Your task to perform on an android device: change alarm snooze length Image 0: 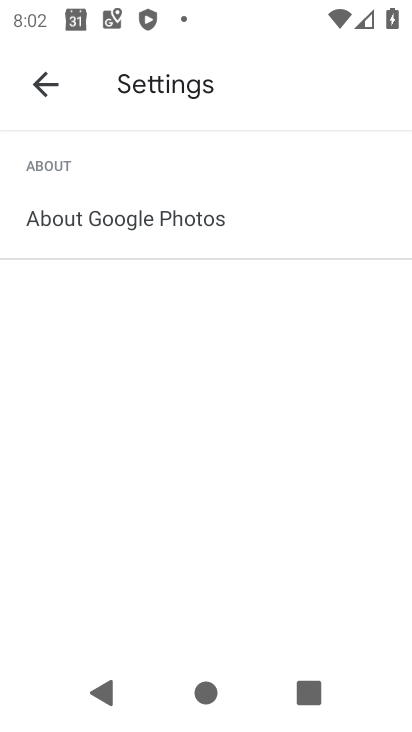
Step 0: press home button
Your task to perform on an android device: change alarm snooze length Image 1: 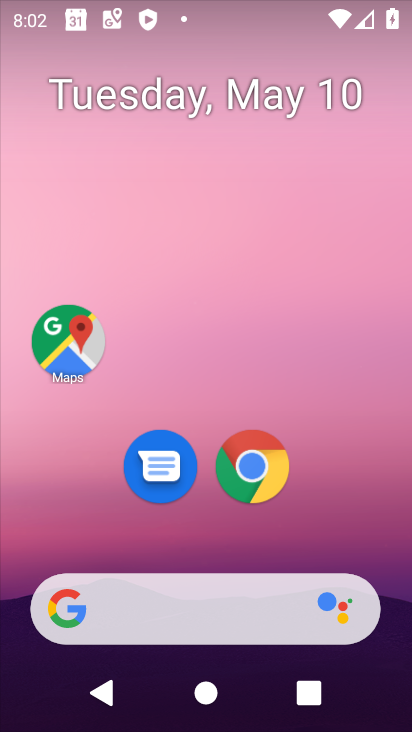
Step 1: drag from (336, 517) to (297, 31)
Your task to perform on an android device: change alarm snooze length Image 2: 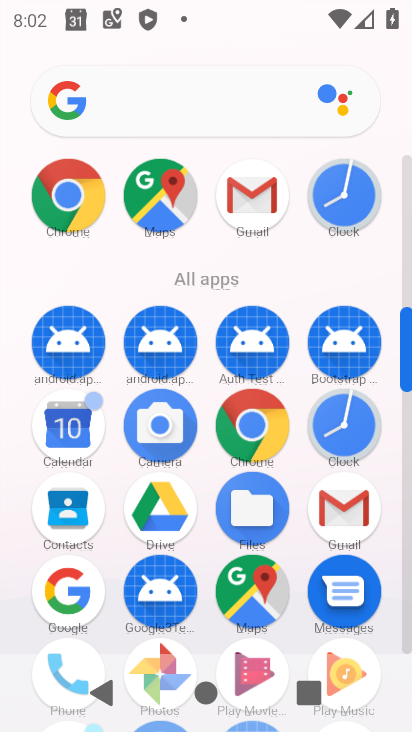
Step 2: click (353, 181)
Your task to perform on an android device: change alarm snooze length Image 3: 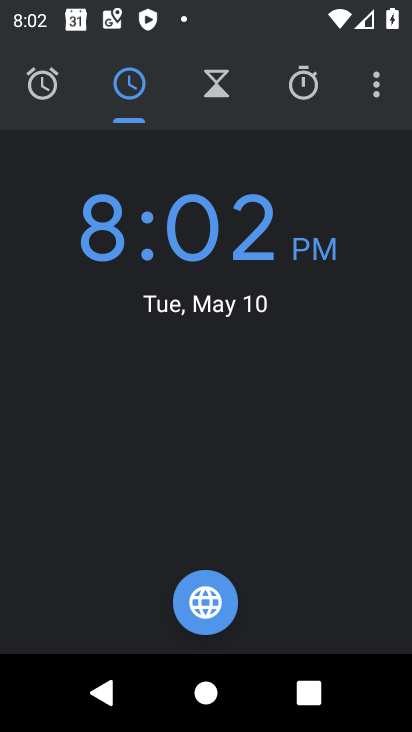
Step 3: click (368, 92)
Your task to perform on an android device: change alarm snooze length Image 4: 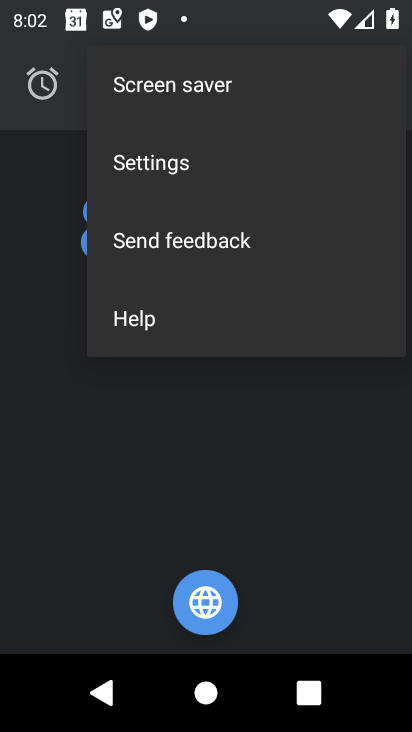
Step 4: click (313, 159)
Your task to perform on an android device: change alarm snooze length Image 5: 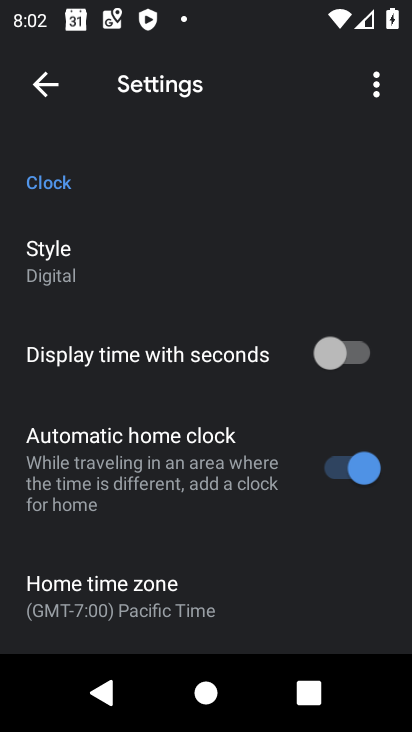
Step 5: drag from (182, 546) to (169, 352)
Your task to perform on an android device: change alarm snooze length Image 6: 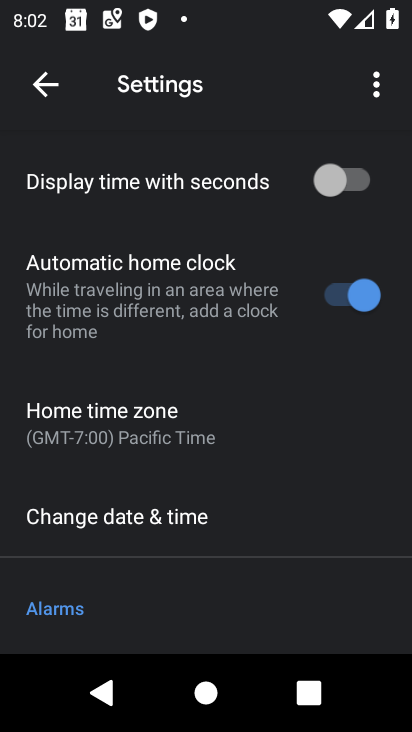
Step 6: drag from (172, 570) to (160, 425)
Your task to perform on an android device: change alarm snooze length Image 7: 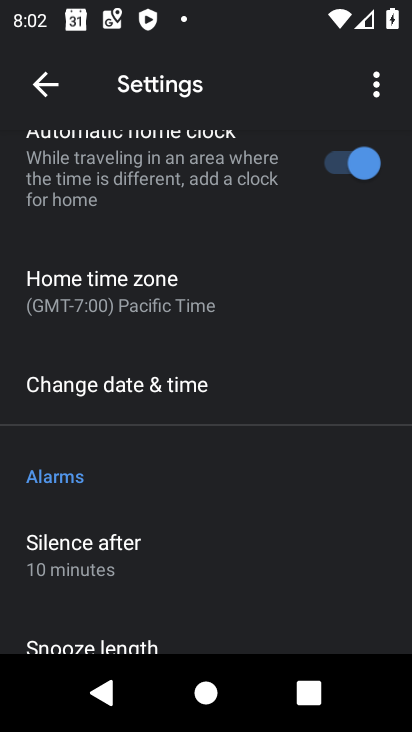
Step 7: drag from (187, 537) to (182, 404)
Your task to perform on an android device: change alarm snooze length Image 8: 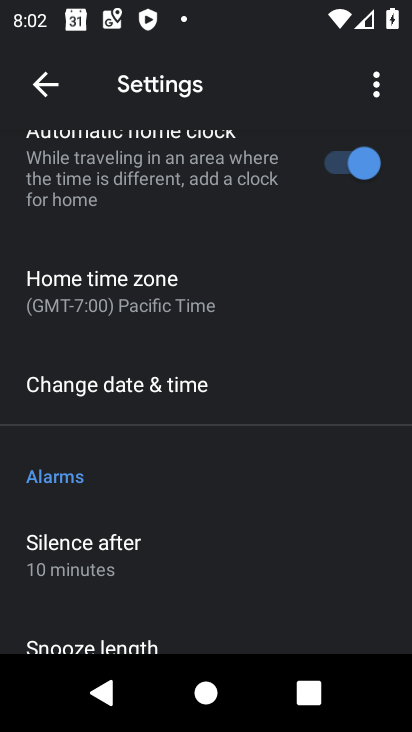
Step 8: drag from (162, 519) to (177, 337)
Your task to perform on an android device: change alarm snooze length Image 9: 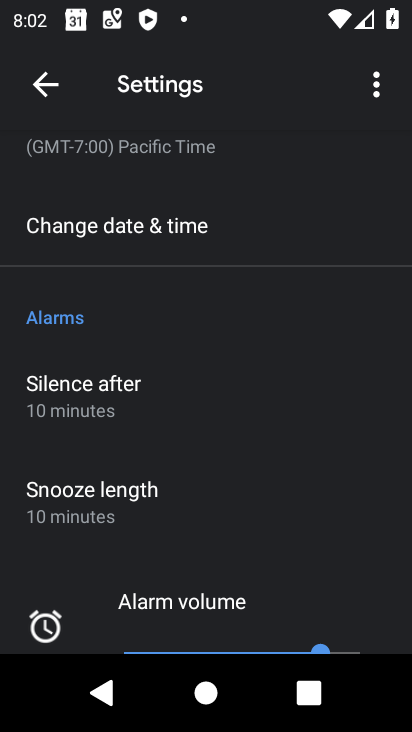
Step 9: click (158, 480)
Your task to perform on an android device: change alarm snooze length Image 10: 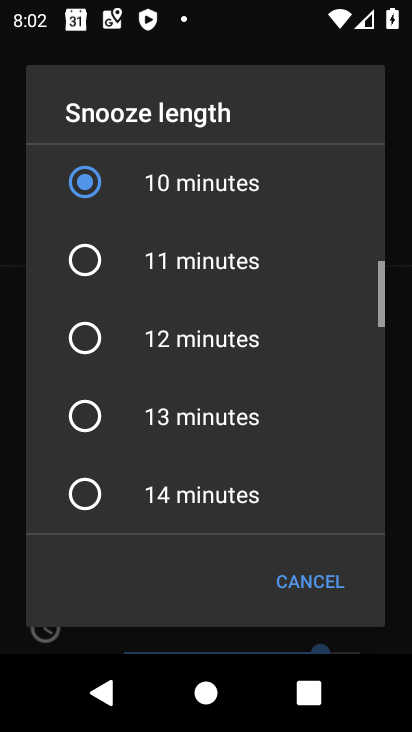
Step 10: click (161, 461)
Your task to perform on an android device: change alarm snooze length Image 11: 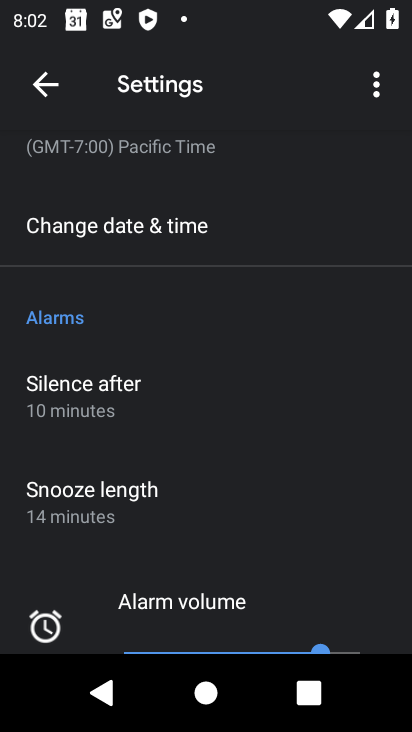
Step 11: task complete